Your task to perform on an android device: Open Youtube and go to "Your channel" Image 0: 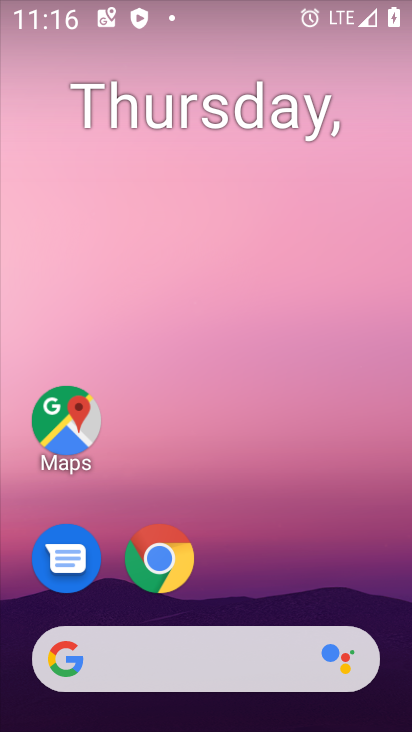
Step 0: drag from (338, 542) to (350, 79)
Your task to perform on an android device: Open Youtube and go to "Your channel" Image 1: 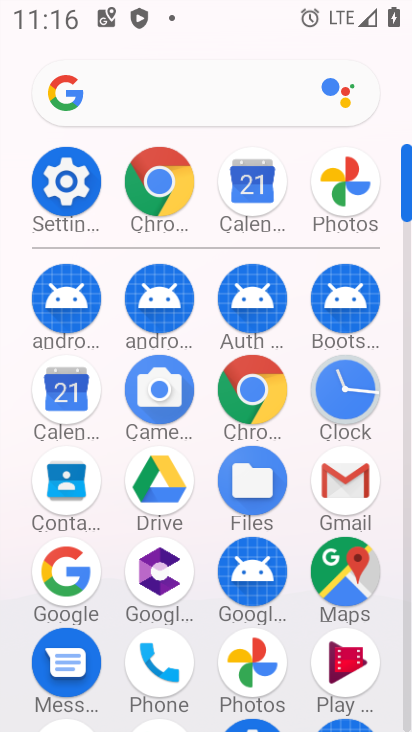
Step 1: drag from (396, 476) to (396, 290)
Your task to perform on an android device: Open Youtube and go to "Your channel" Image 2: 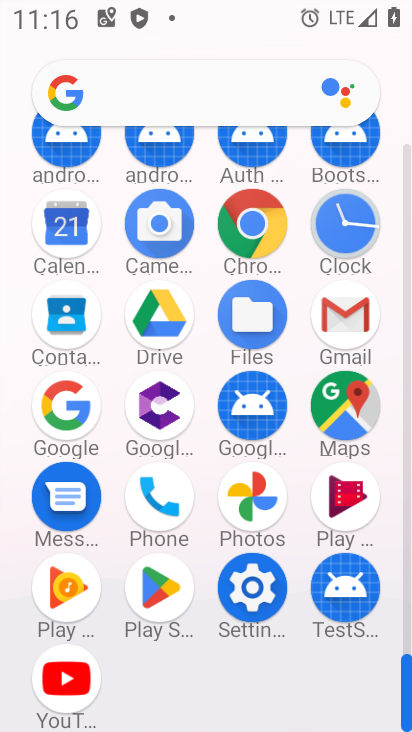
Step 2: click (71, 676)
Your task to perform on an android device: Open Youtube and go to "Your channel" Image 3: 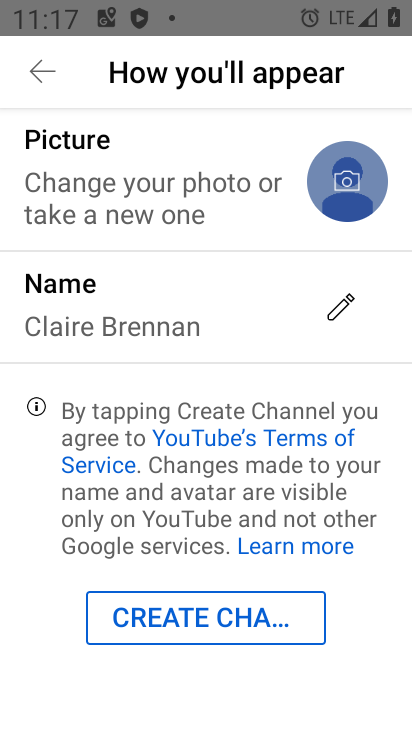
Step 3: press back button
Your task to perform on an android device: Open Youtube and go to "Your channel" Image 4: 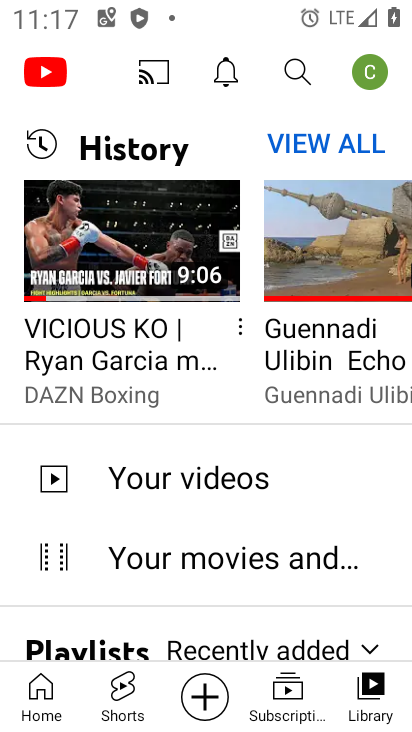
Step 4: click (371, 68)
Your task to perform on an android device: Open Youtube and go to "Your channel" Image 5: 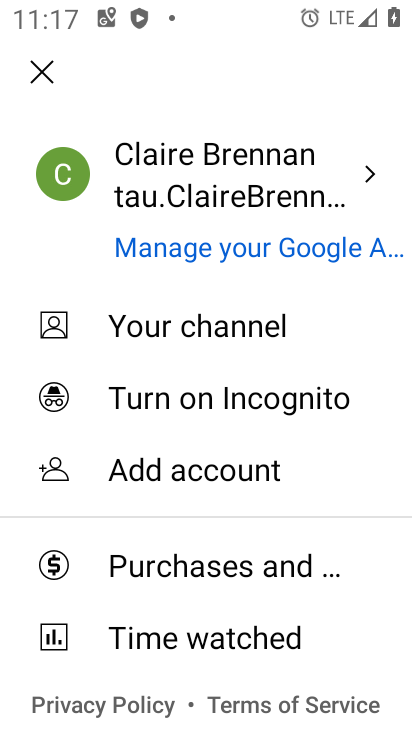
Step 5: click (264, 323)
Your task to perform on an android device: Open Youtube and go to "Your channel" Image 6: 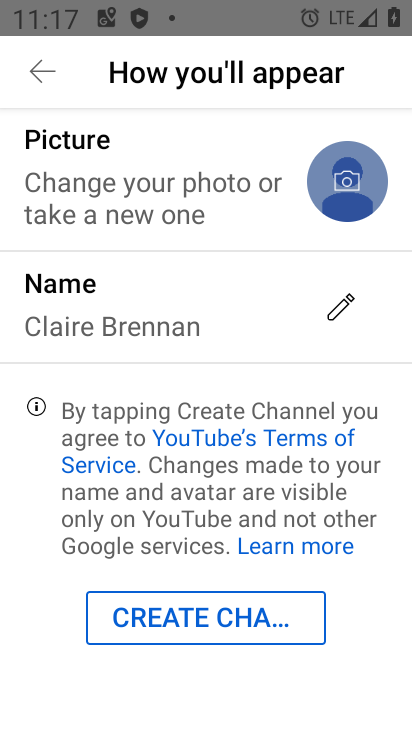
Step 6: task complete